Your task to perform on an android device: Go to calendar. Show me events next week Image 0: 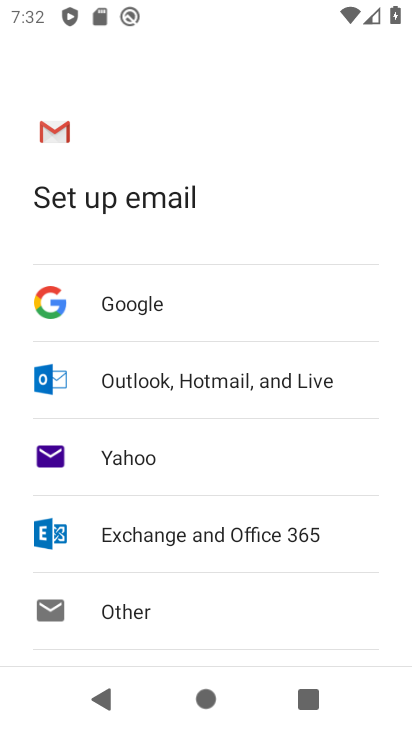
Step 0: press home button
Your task to perform on an android device: Go to calendar. Show me events next week Image 1: 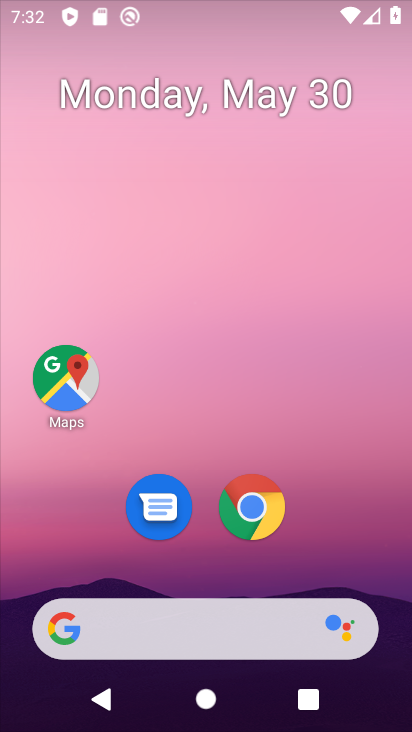
Step 1: drag from (323, 541) to (319, 203)
Your task to perform on an android device: Go to calendar. Show me events next week Image 2: 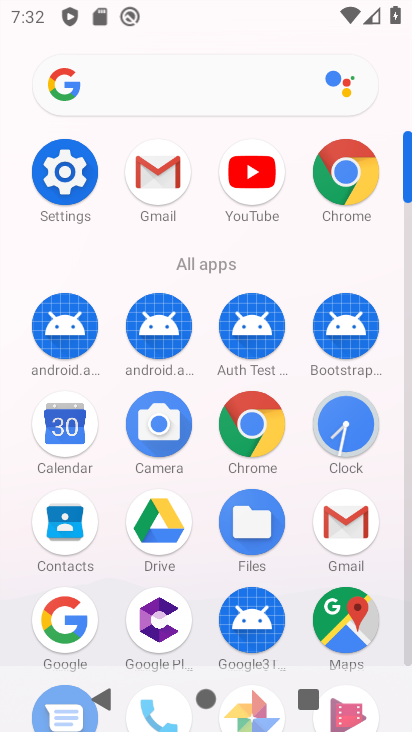
Step 2: drag from (296, 564) to (323, 242)
Your task to perform on an android device: Go to calendar. Show me events next week Image 3: 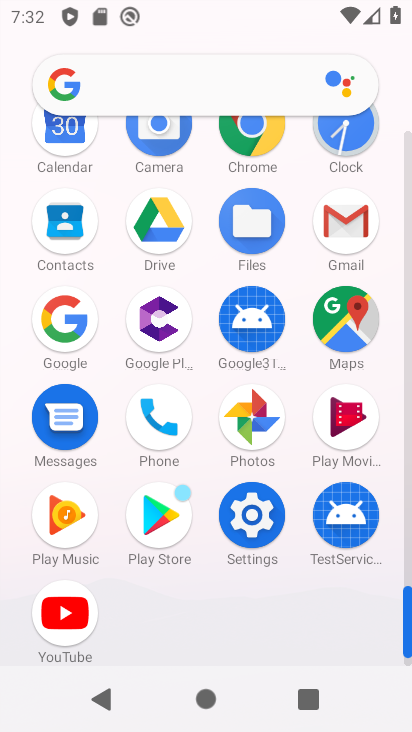
Step 3: drag from (218, 368) to (227, 556)
Your task to perform on an android device: Go to calendar. Show me events next week Image 4: 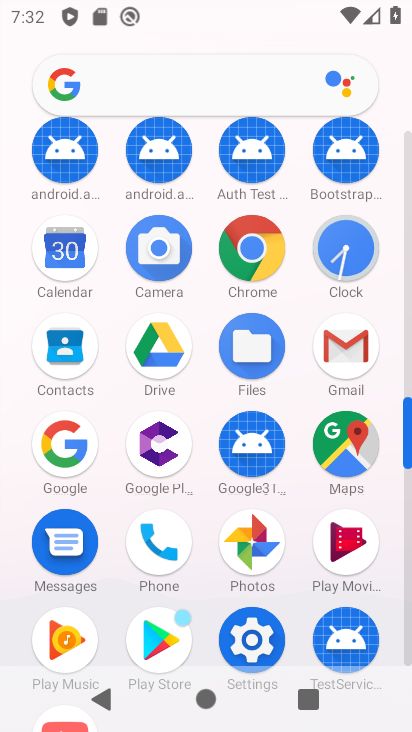
Step 4: click (58, 240)
Your task to perform on an android device: Go to calendar. Show me events next week Image 5: 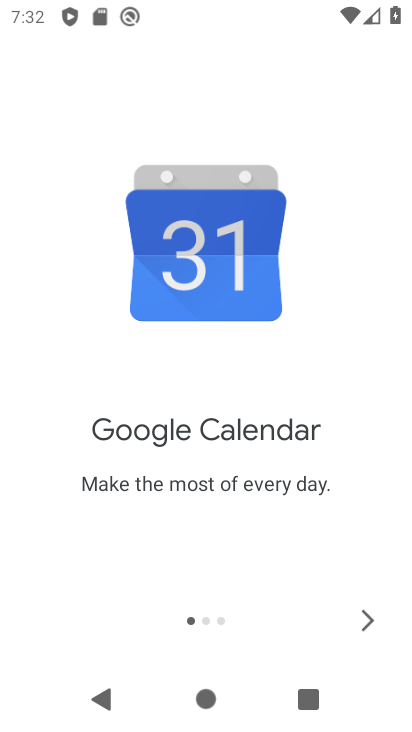
Step 5: click (373, 633)
Your task to perform on an android device: Go to calendar. Show me events next week Image 6: 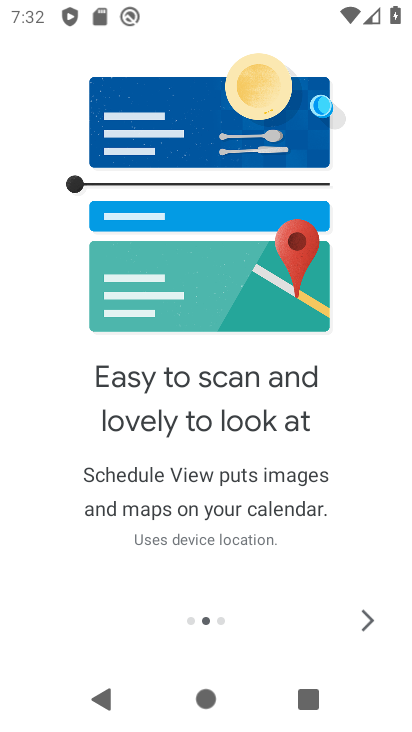
Step 6: click (370, 635)
Your task to perform on an android device: Go to calendar. Show me events next week Image 7: 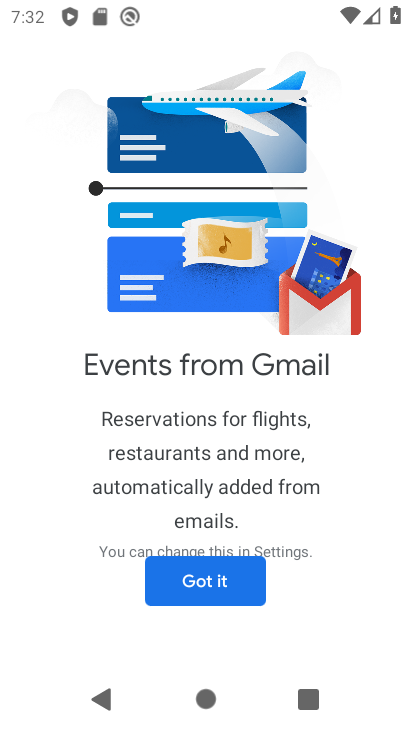
Step 7: click (198, 567)
Your task to perform on an android device: Go to calendar. Show me events next week Image 8: 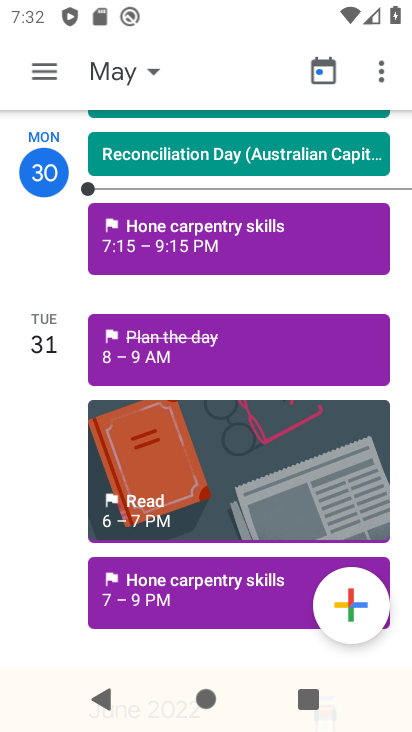
Step 8: click (95, 69)
Your task to perform on an android device: Go to calendar. Show me events next week Image 9: 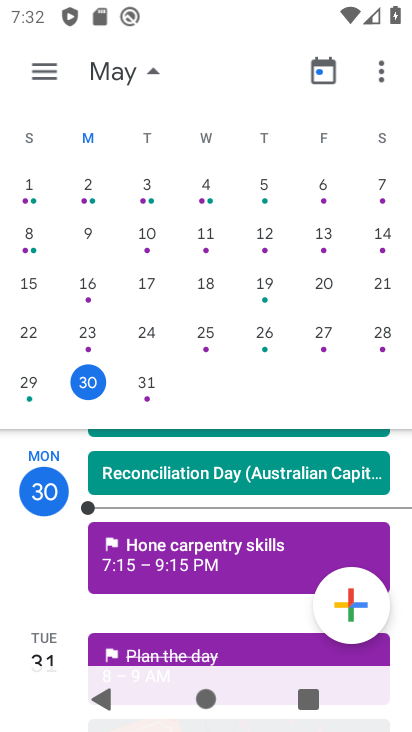
Step 9: drag from (346, 301) to (0, 277)
Your task to perform on an android device: Go to calendar. Show me events next week Image 10: 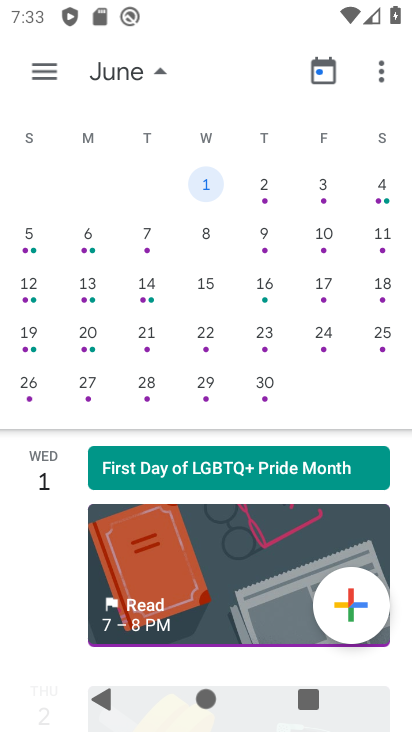
Step 10: click (34, 234)
Your task to perform on an android device: Go to calendar. Show me events next week Image 11: 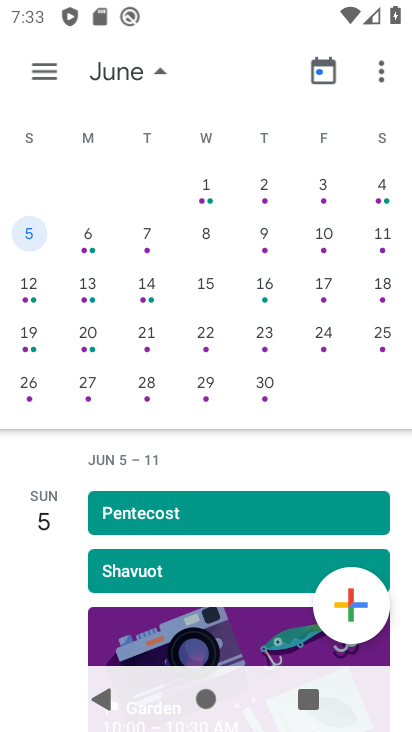
Step 11: task complete